Your task to perform on an android device: What is the news today? Image 0: 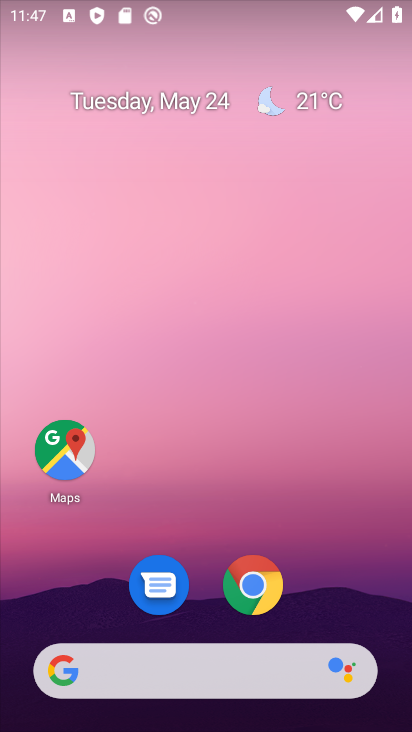
Step 0: click (186, 668)
Your task to perform on an android device: What is the news today? Image 1: 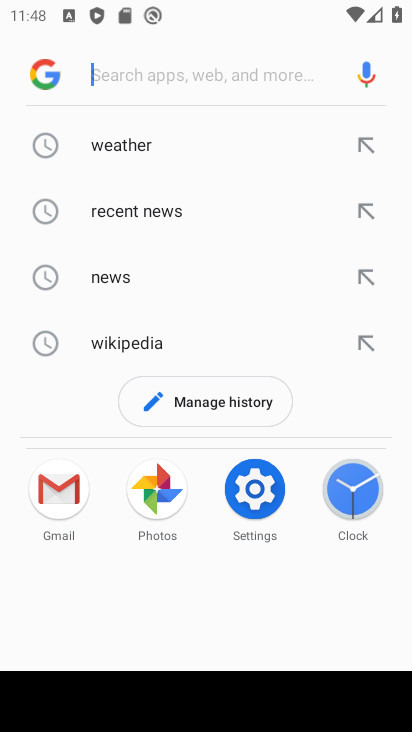
Step 1: click (70, 275)
Your task to perform on an android device: What is the news today? Image 2: 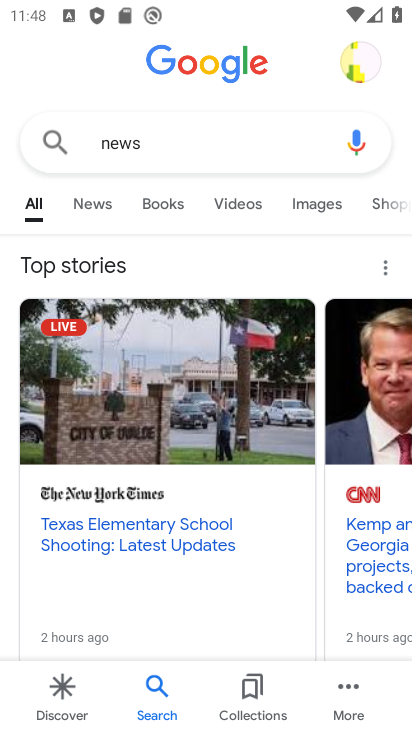
Step 2: click (87, 206)
Your task to perform on an android device: What is the news today? Image 3: 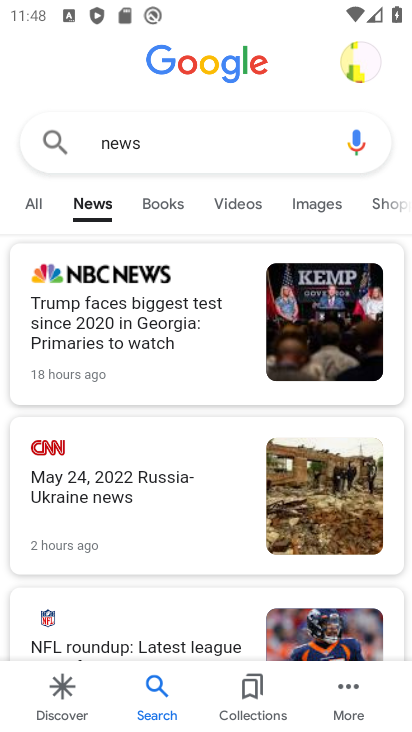
Step 3: task complete